Your task to perform on an android device: Open Youtube and go to "Your channel" Image 0: 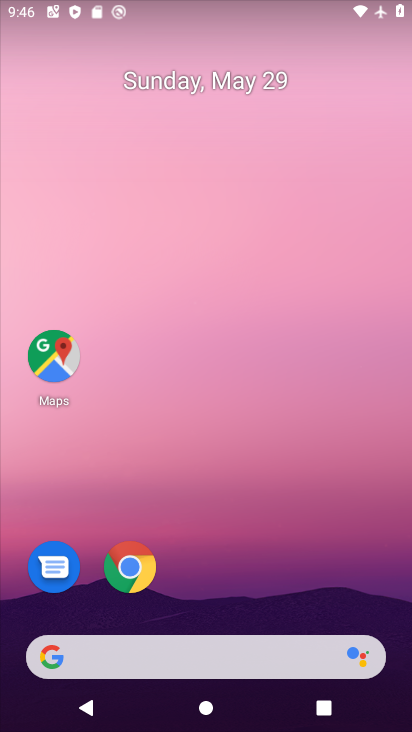
Step 0: drag from (396, 618) to (321, 60)
Your task to perform on an android device: Open Youtube and go to "Your channel" Image 1: 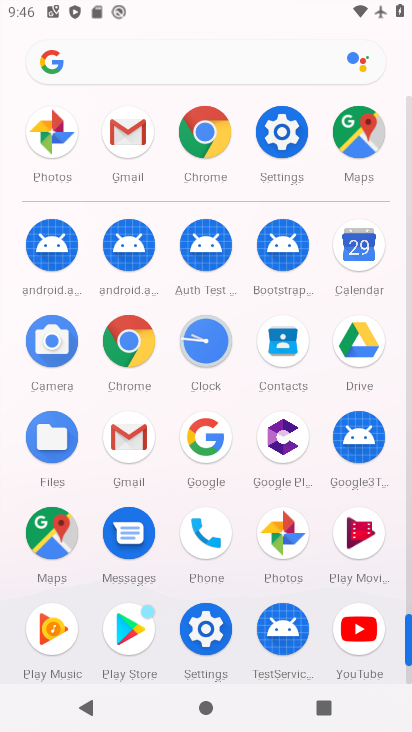
Step 1: click (358, 632)
Your task to perform on an android device: Open Youtube and go to "Your channel" Image 2: 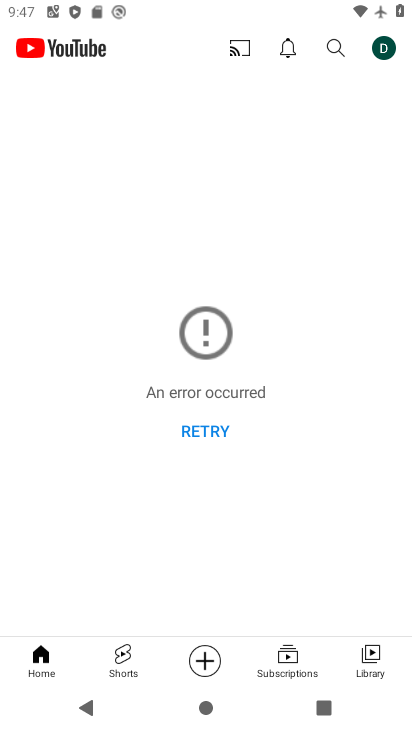
Step 2: click (386, 49)
Your task to perform on an android device: Open Youtube and go to "Your channel" Image 3: 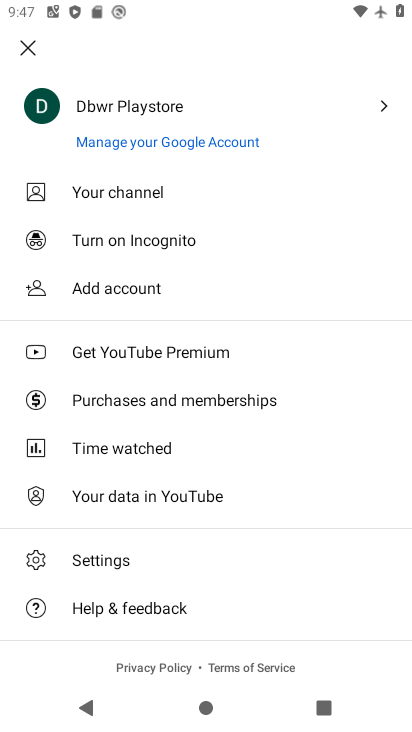
Step 3: click (104, 188)
Your task to perform on an android device: Open Youtube and go to "Your channel" Image 4: 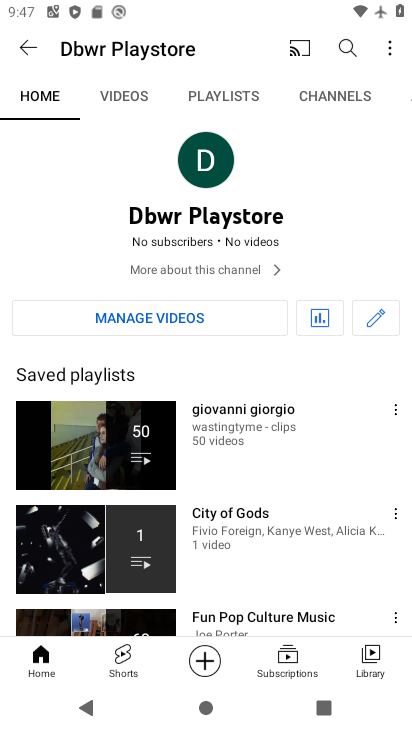
Step 4: task complete